Your task to perform on an android device: Search for Mexican restaurants on Maps Image 0: 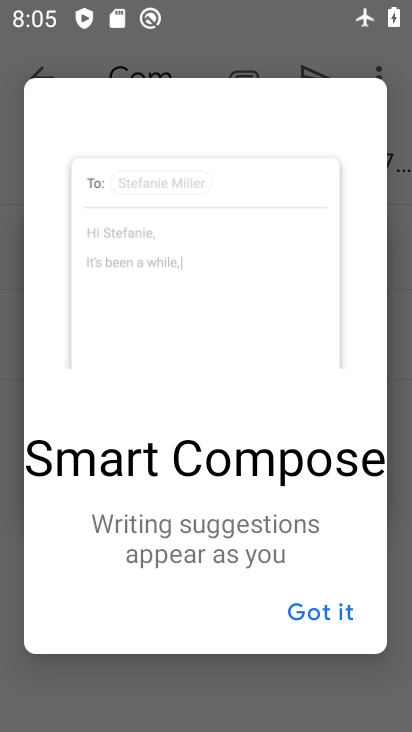
Step 0: click (328, 606)
Your task to perform on an android device: Search for Mexican restaurants on Maps Image 1: 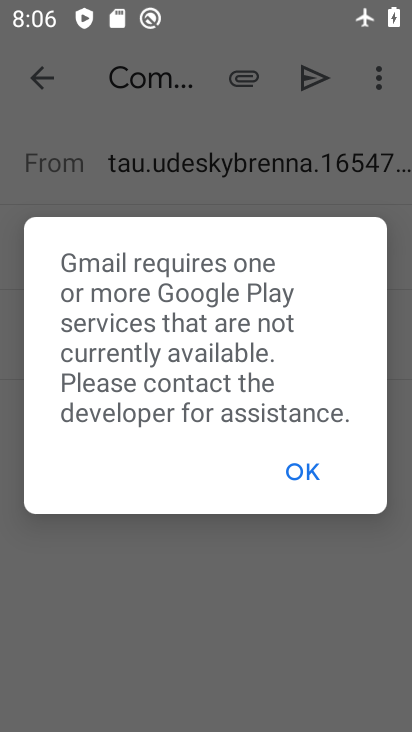
Step 1: press home button
Your task to perform on an android device: Search for Mexican restaurants on Maps Image 2: 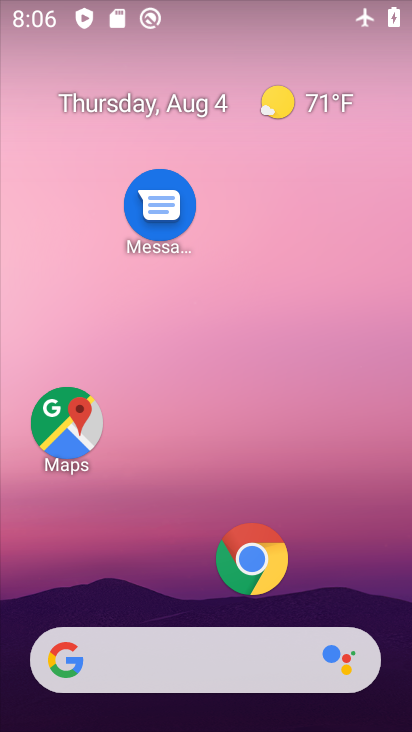
Step 2: drag from (246, 613) to (103, 0)
Your task to perform on an android device: Search for Mexican restaurants on Maps Image 3: 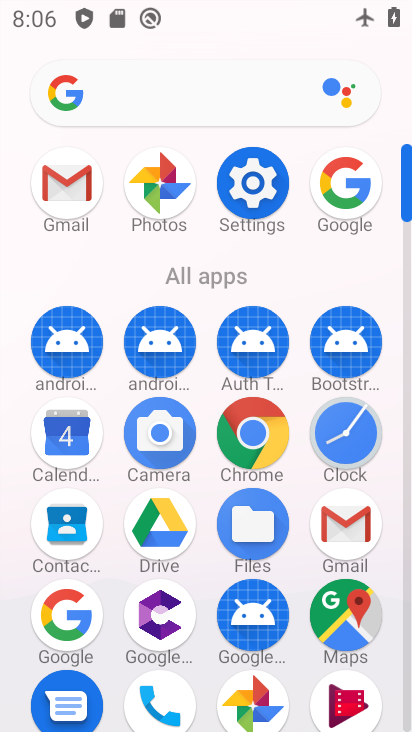
Step 3: click (347, 625)
Your task to perform on an android device: Search for Mexican restaurants on Maps Image 4: 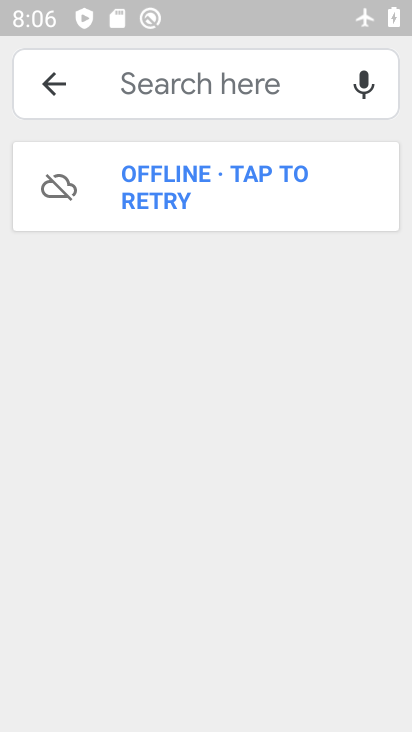
Step 4: click (165, 108)
Your task to perform on an android device: Search for Mexican restaurants on Maps Image 5: 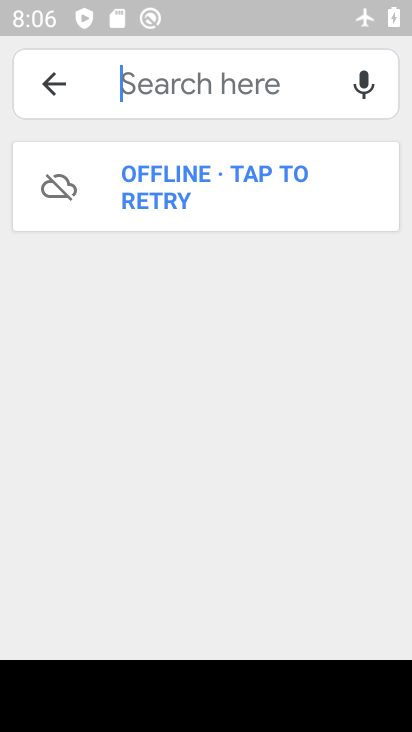
Step 5: type "Mexican restaurants"
Your task to perform on an android device: Search for Mexican restaurants on Maps Image 6: 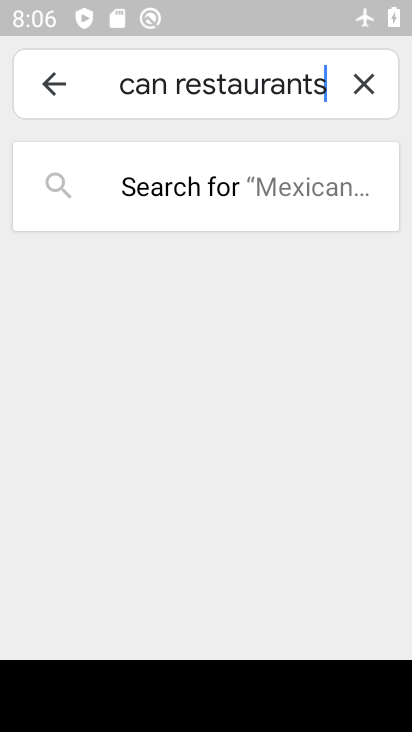
Step 6: type ""
Your task to perform on an android device: Search for Mexican restaurants on Maps Image 7: 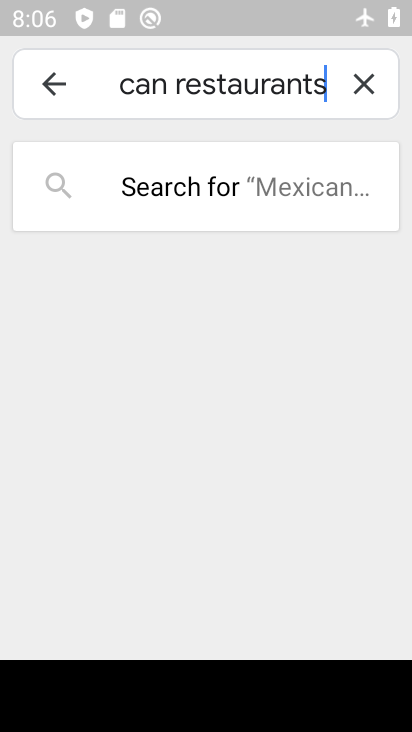
Step 7: click (160, 192)
Your task to perform on an android device: Search for Mexican restaurants on Maps Image 8: 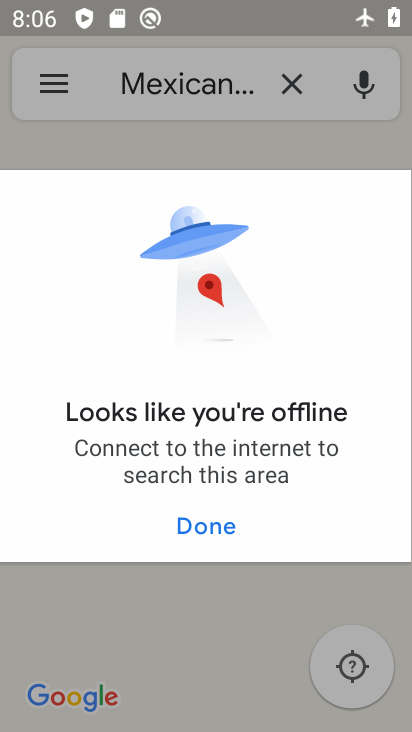
Step 8: task complete